Your task to perform on an android device: Add "logitech g502" to the cart on bestbuy Image 0: 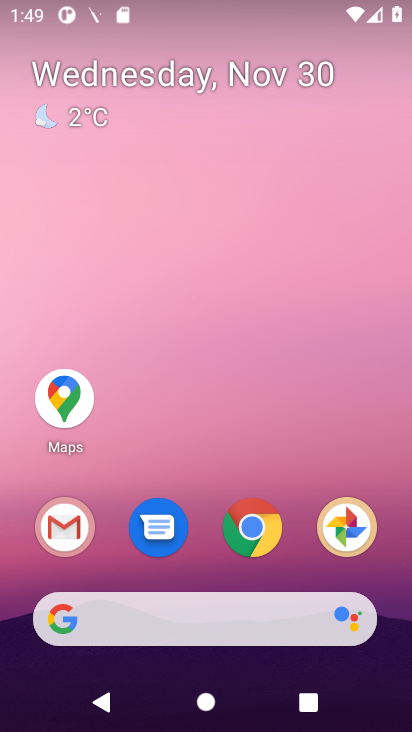
Step 0: click (252, 540)
Your task to perform on an android device: Add "logitech g502" to the cart on bestbuy Image 1: 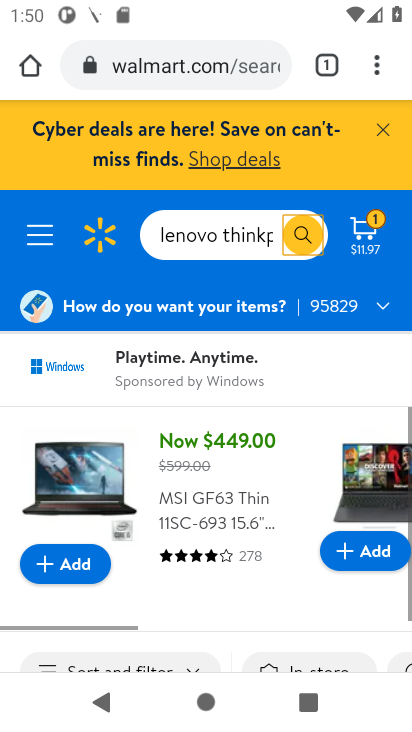
Step 1: click (219, 226)
Your task to perform on an android device: Add "logitech g502" to the cart on bestbuy Image 2: 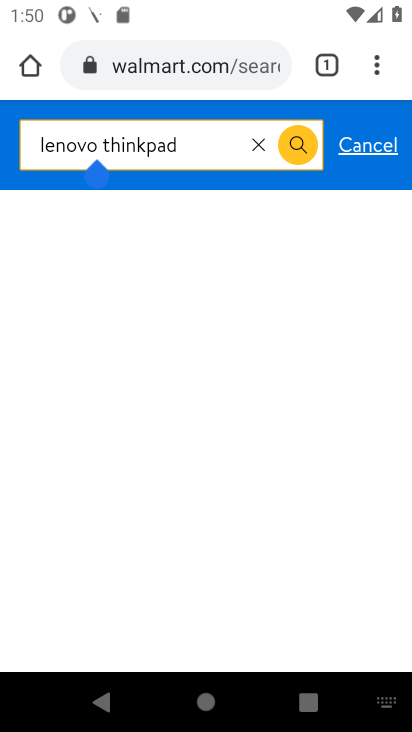
Step 2: task complete